Your task to perform on an android device: Show me recent news Image 0: 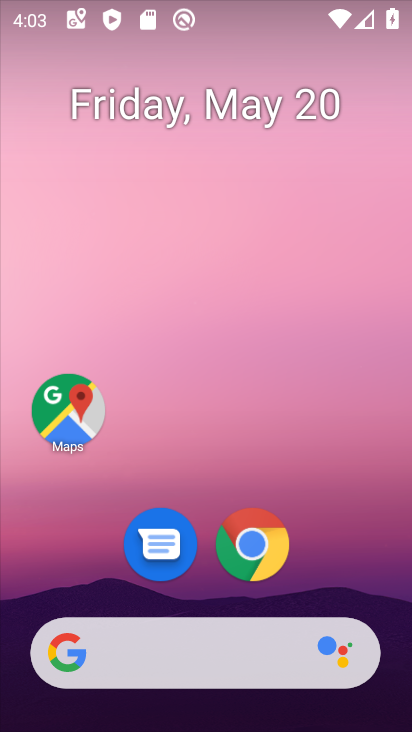
Step 0: click (136, 644)
Your task to perform on an android device: Show me recent news Image 1: 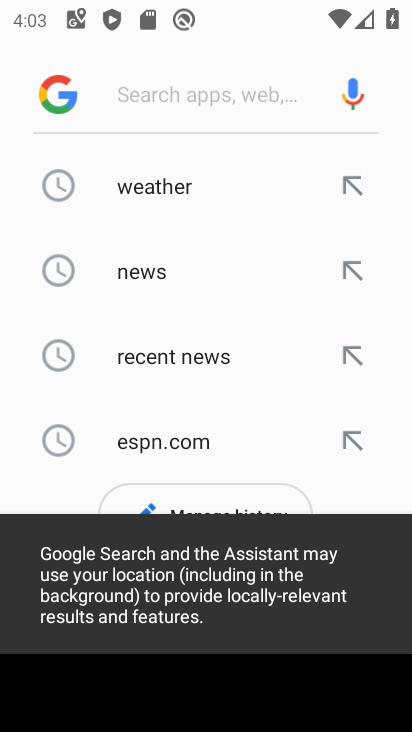
Step 1: click (151, 361)
Your task to perform on an android device: Show me recent news Image 2: 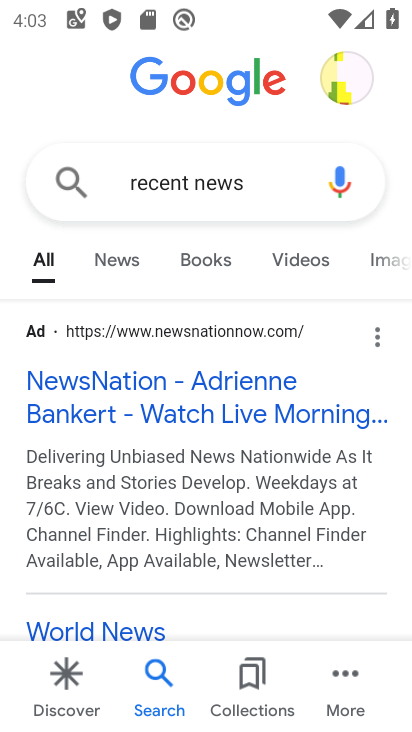
Step 2: click (109, 249)
Your task to perform on an android device: Show me recent news Image 3: 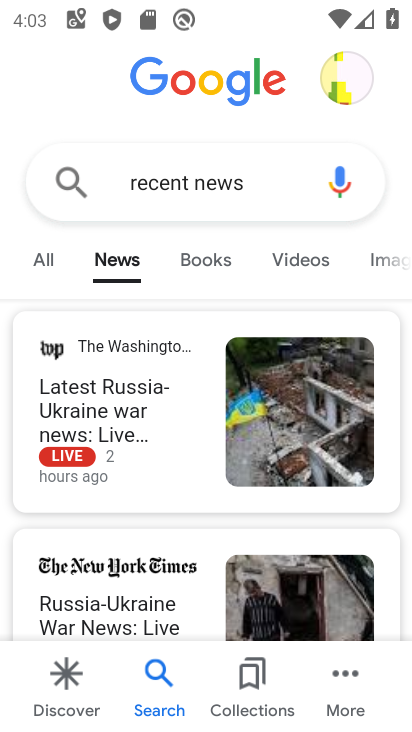
Step 3: drag from (120, 546) to (120, 439)
Your task to perform on an android device: Show me recent news Image 4: 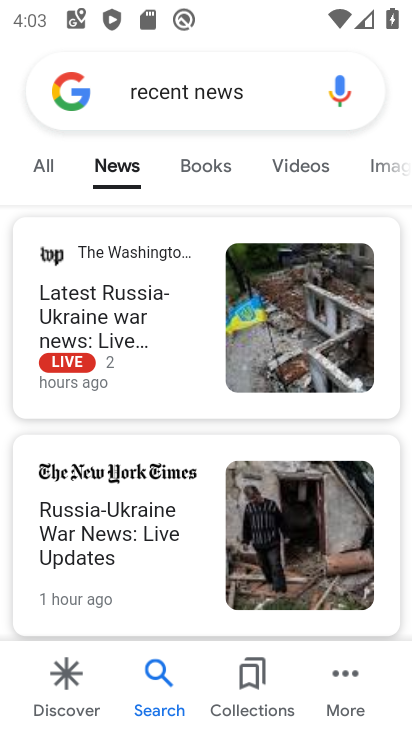
Step 4: click (73, 317)
Your task to perform on an android device: Show me recent news Image 5: 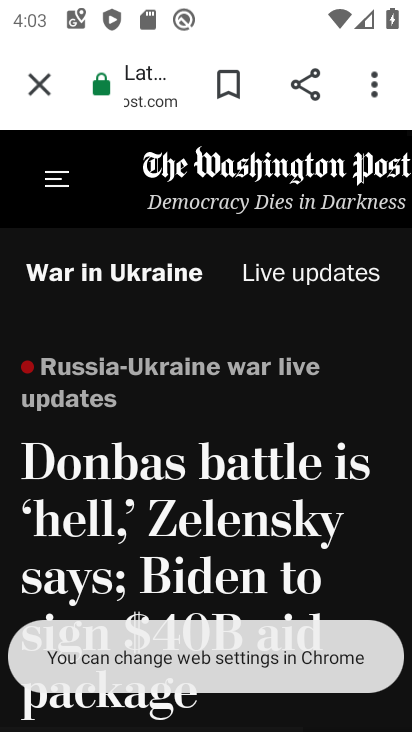
Step 5: task complete